Your task to perform on an android device: open wifi settings Image 0: 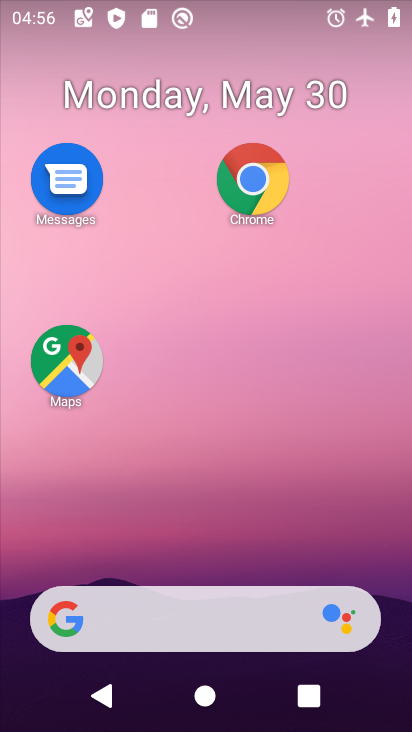
Step 0: drag from (153, 532) to (274, 187)
Your task to perform on an android device: open wifi settings Image 1: 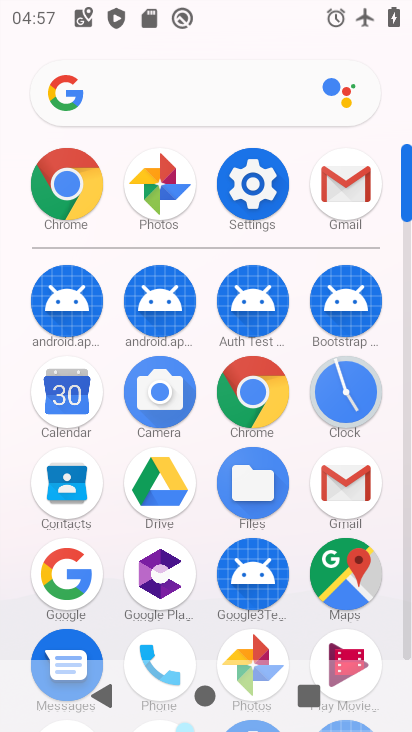
Step 1: click (262, 196)
Your task to perform on an android device: open wifi settings Image 2: 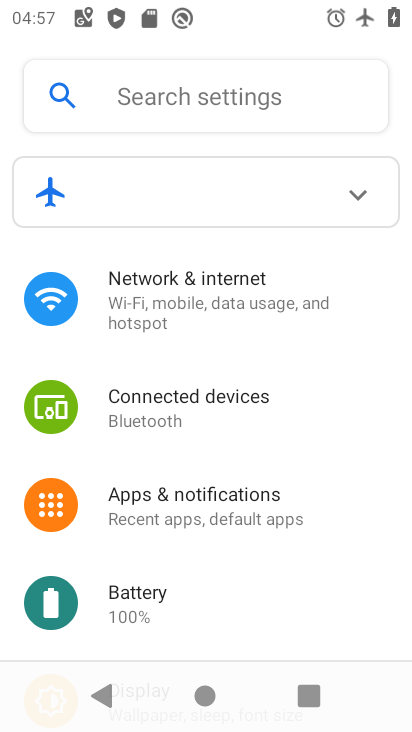
Step 2: click (208, 303)
Your task to perform on an android device: open wifi settings Image 3: 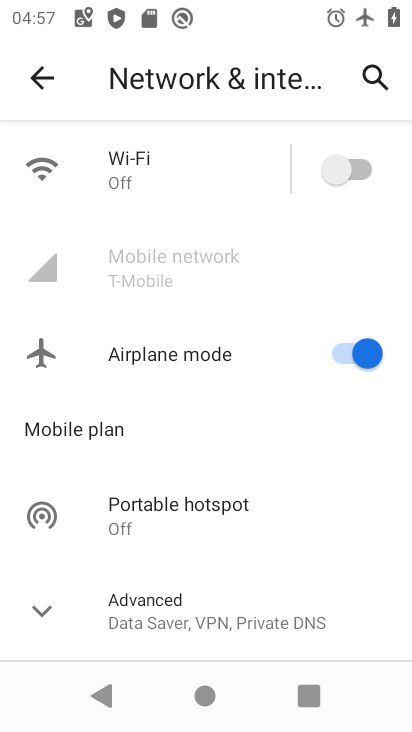
Step 3: click (116, 157)
Your task to perform on an android device: open wifi settings Image 4: 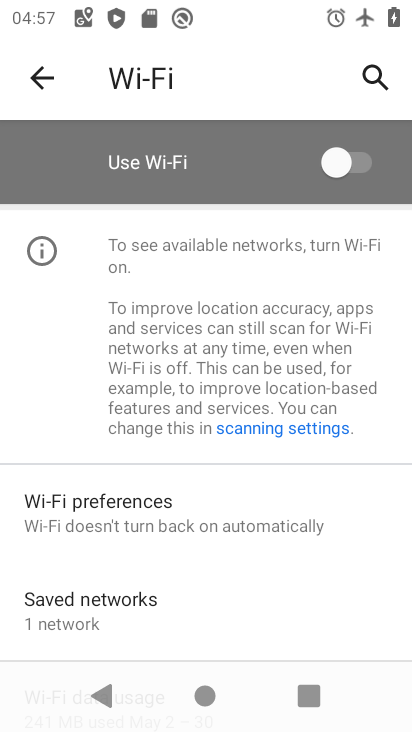
Step 4: task complete